Your task to perform on an android device: delete browsing data in the chrome app Image 0: 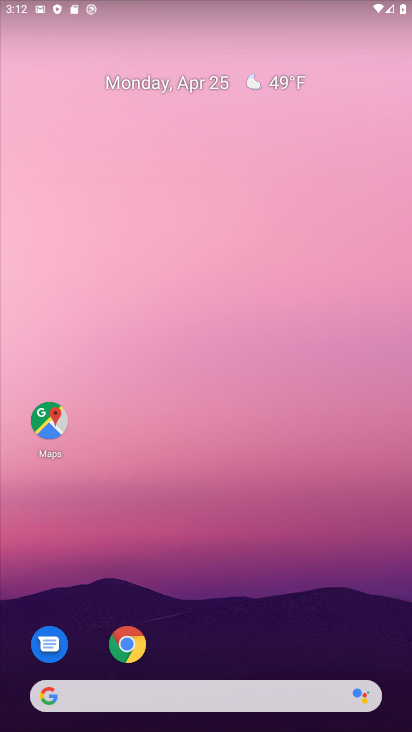
Step 0: click (128, 640)
Your task to perform on an android device: delete browsing data in the chrome app Image 1: 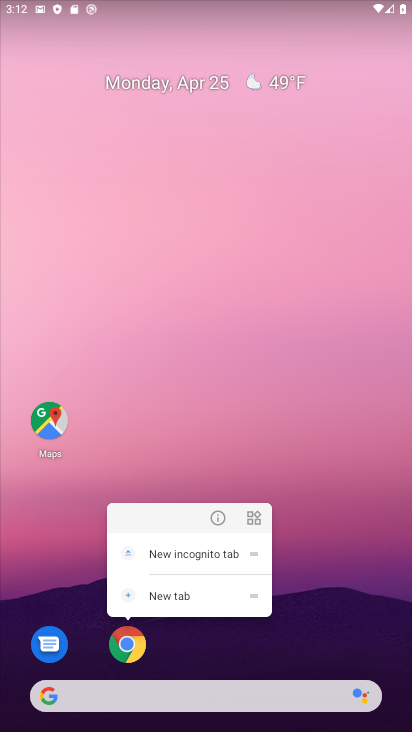
Step 1: click (125, 644)
Your task to perform on an android device: delete browsing data in the chrome app Image 2: 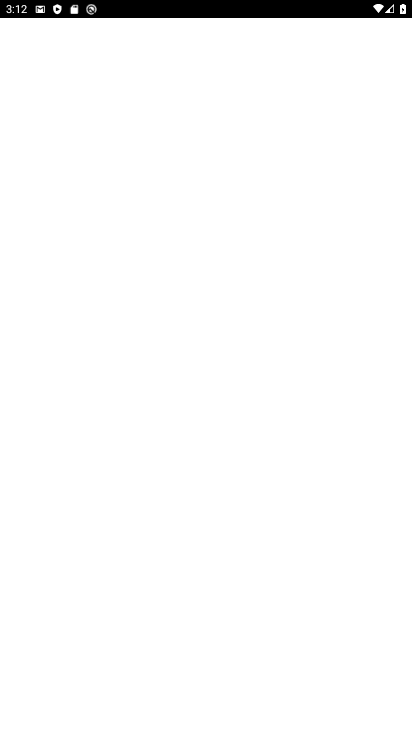
Step 2: click (125, 644)
Your task to perform on an android device: delete browsing data in the chrome app Image 3: 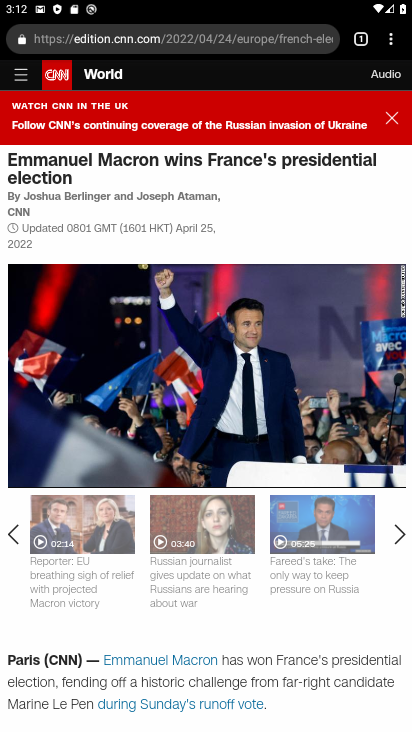
Step 3: click (361, 37)
Your task to perform on an android device: delete browsing data in the chrome app Image 4: 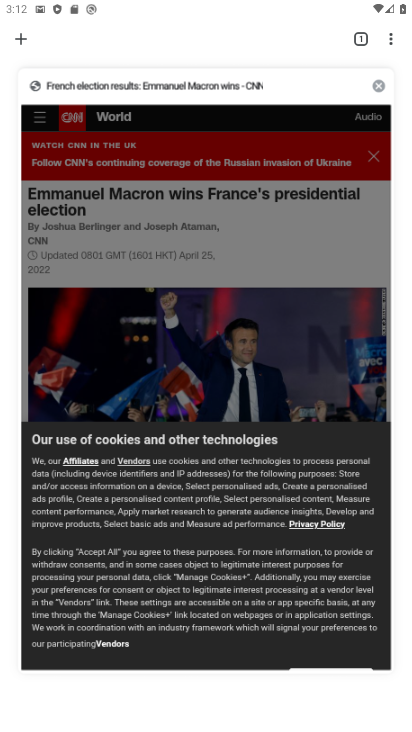
Step 4: click (384, 44)
Your task to perform on an android device: delete browsing data in the chrome app Image 5: 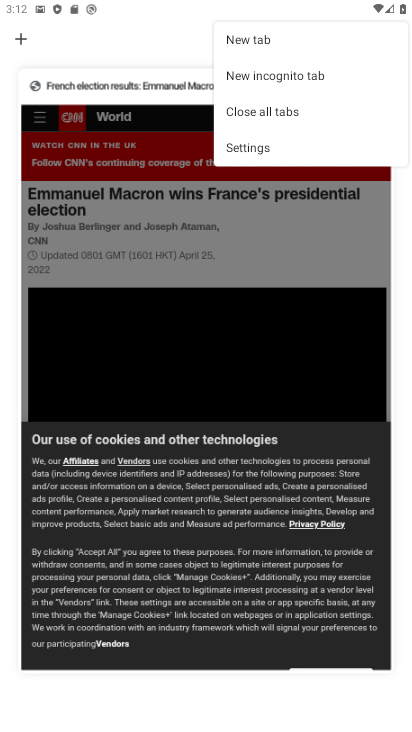
Step 5: click (309, 134)
Your task to perform on an android device: delete browsing data in the chrome app Image 6: 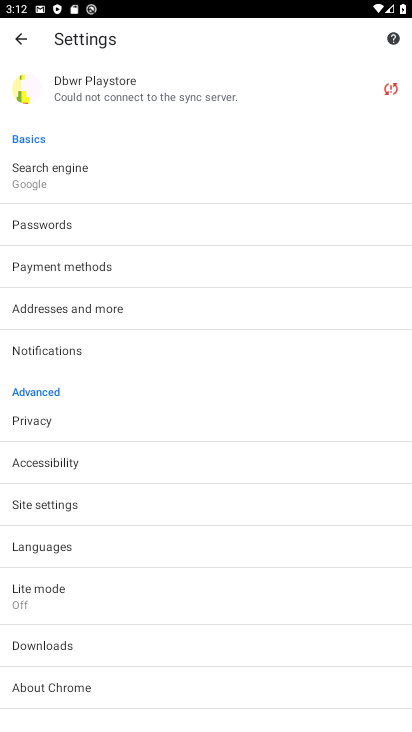
Step 6: click (146, 515)
Your task to perform on an android device: delete browsing data in the chrome app Image 7: 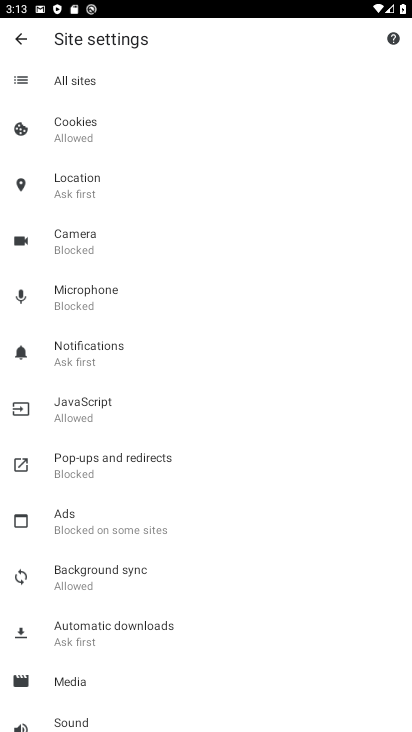
Step 7: click (33, 32)
Your task to perform on an android device: delete browsing data in the chrome app Image 8: 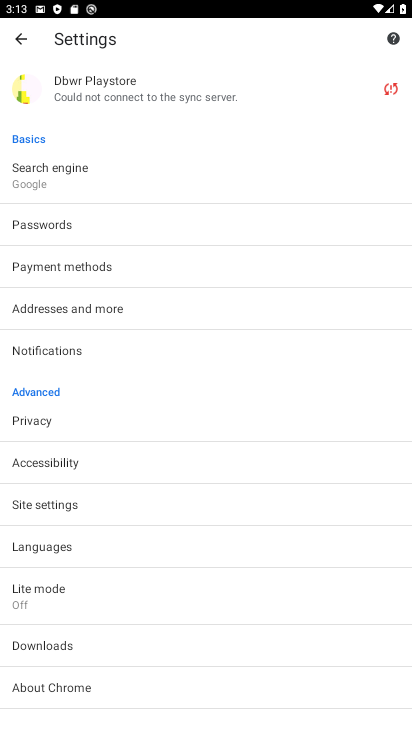
Step 8: task complete